Your task to perform on an android device: open app "PUBG MOBILE" (install if not already installed), go to login, and select forgot password Image 0: 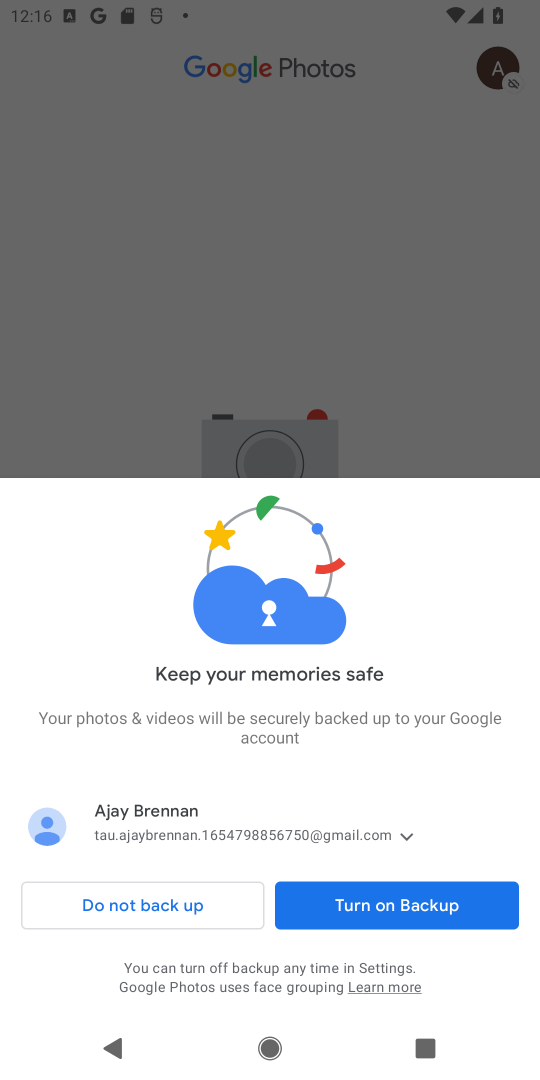
Step 0: press home button
Your task to perform on an android device: open app "PUBG MOBILE" (install if not already installed), go to login, and select forgot password Image 1: 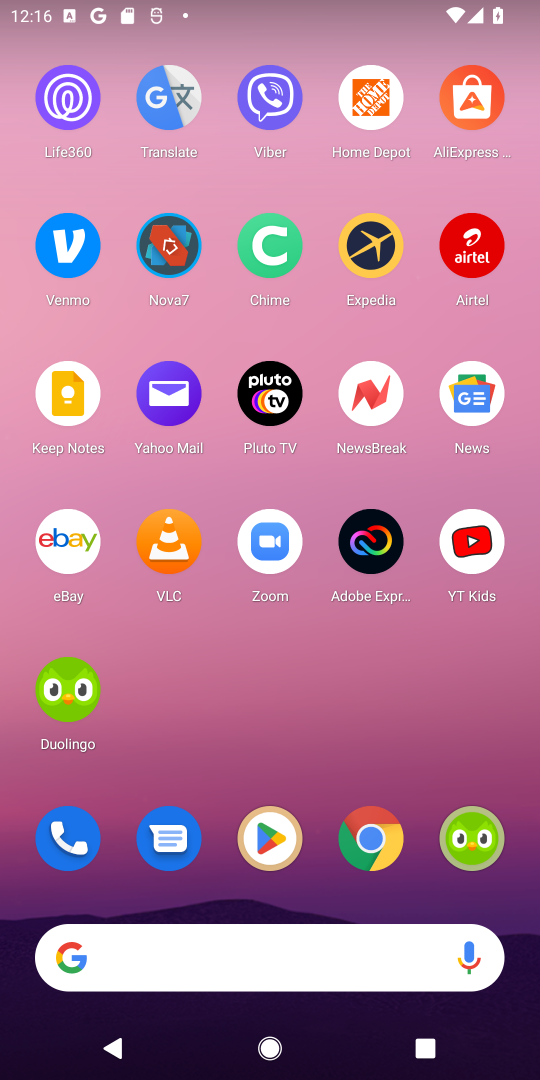
Step 1: click (256, 841)
Your task to perform on an android device: open app "PUBG MOBILE" (install if not already installed), go to login, and select forgot password Image 2: 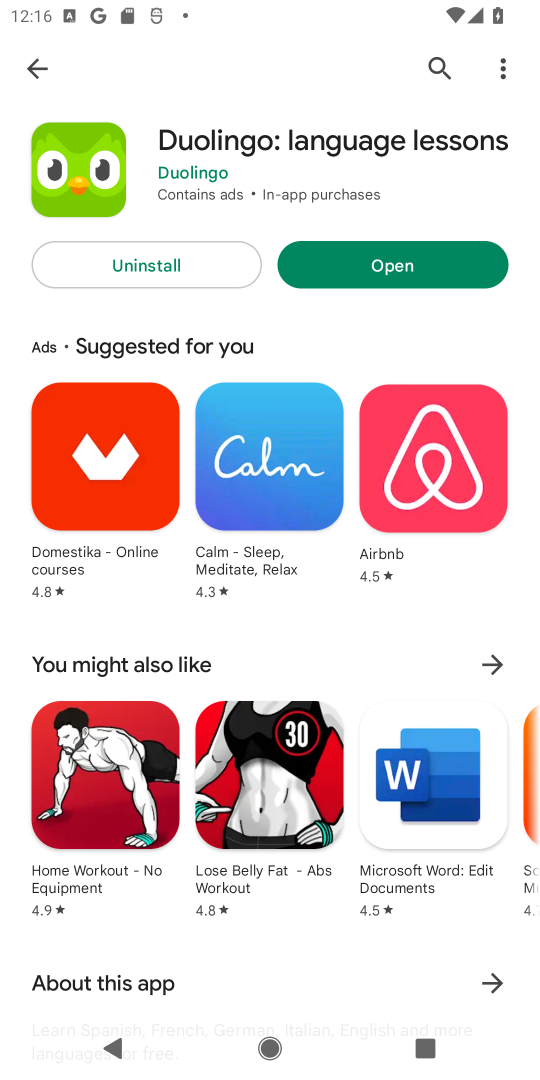
Step 2: click (438, 52)
Your task to perform on an android device: open app "PUBG MOBILE" (install if not already installed), go to login, and select forgot password Image 3: 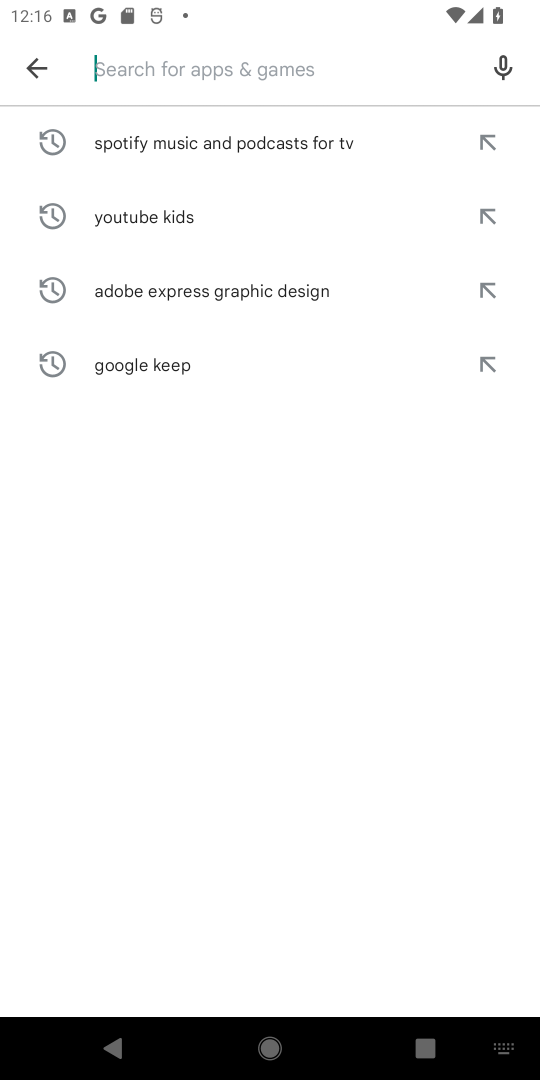
Step 3: type "PUBG MOBILE"
Your task to perform on an android device: open app "PUBG MOBILE" (install if not already installed), go to login, and select forgot password Image 4: 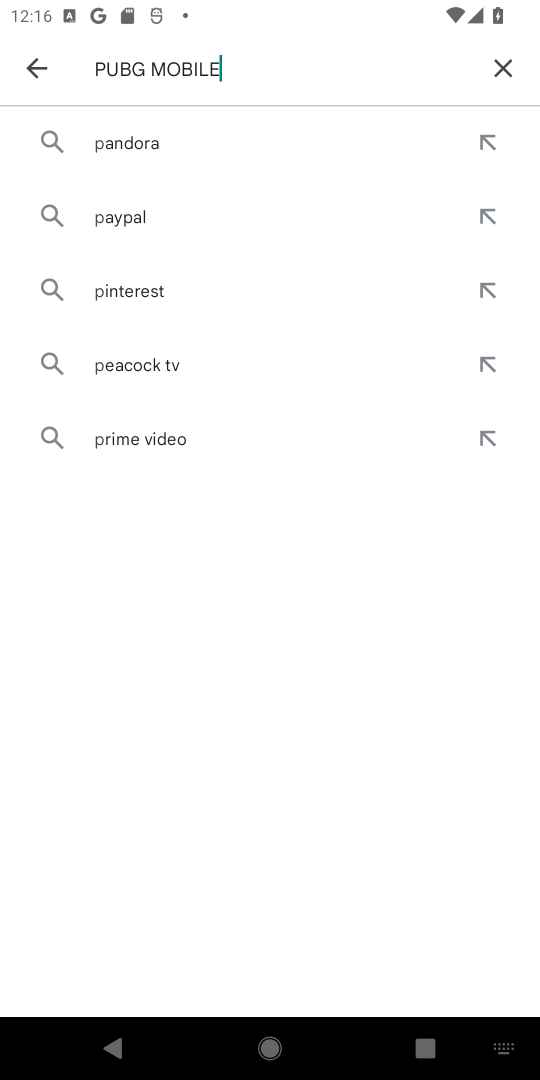
Step 4: type ""
Your task to perform on an android device: open app "PUBG MOBILE" (install if not already installed), go to login, and select forgot password Image 5: 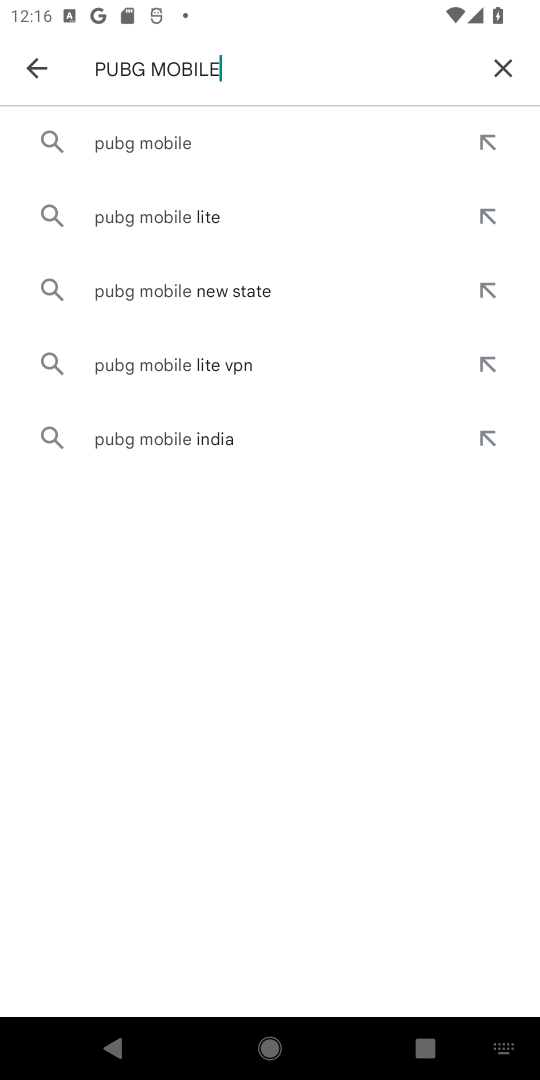
Step 5: click (222, 146)
Your task to perform on an android device: open app "PUBG MOBILE" (install if not already installed), go to login, and select forgot password Image 6: 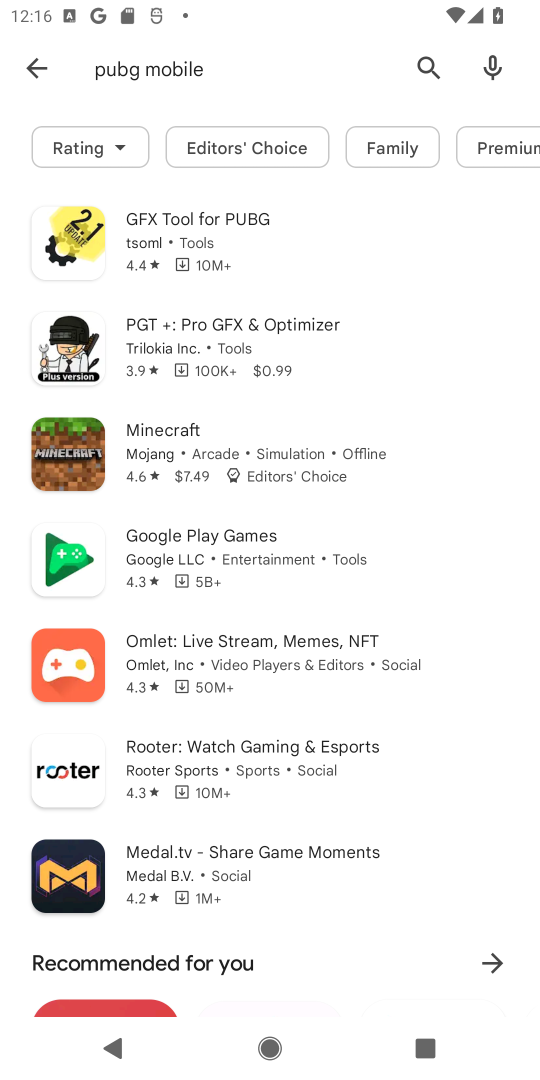
Step 6: task complete